Your task to perform on an android device: turn off data saver in the chrome app Image 0: 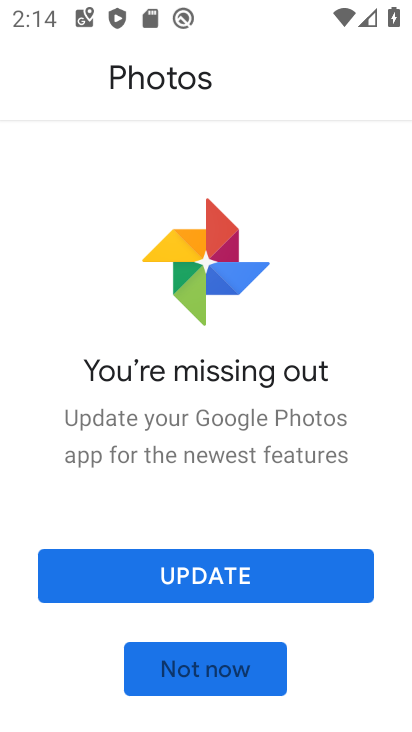
Step 0: press home button
Your task to perform on an android device: turn off data saver in the chrome app Image 1: 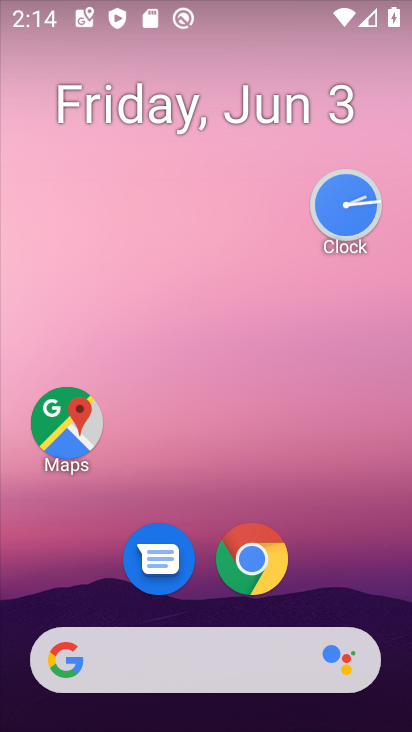
Step 1: click (271, 573)
Your task to perform on an android device: turn off data saver in the chrome app Image 2: 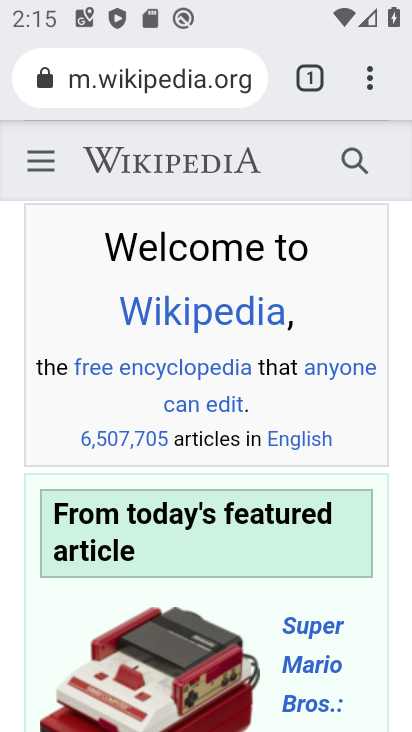
Step 2: click (373, 83)
Your task to perform on an android device: turn off data saver in the chrome app Image 3: 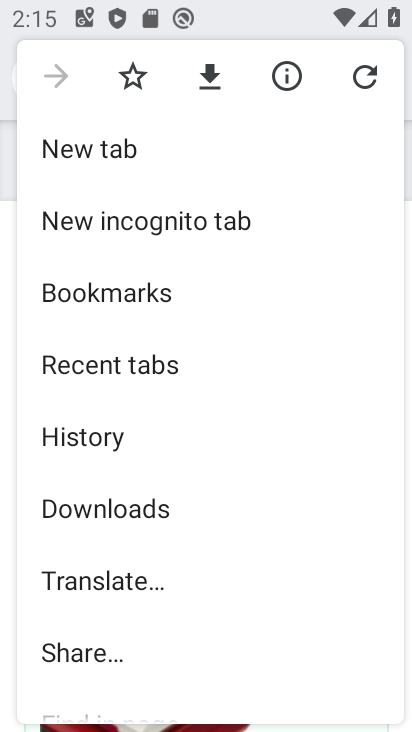
Step 3: drag from (206, 629) to (177, 464)
Your task to perform on an android device: turn off data saver in the chrome app Image 4: 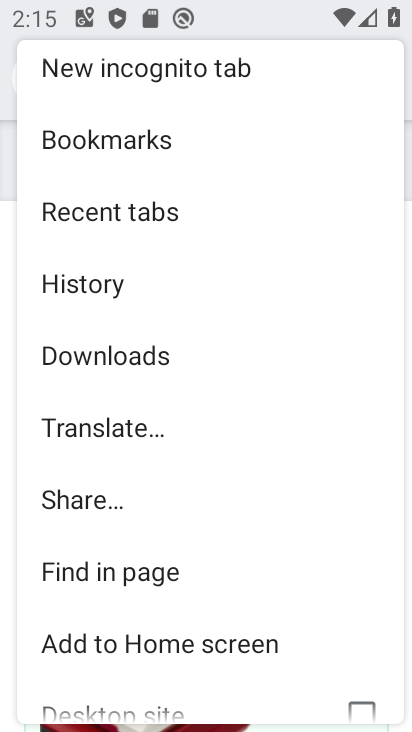
Step 4: drag from (220, 623) to (214, 445)
Your task to perform on an android device: turn off data saver in the chrome app Image 5: 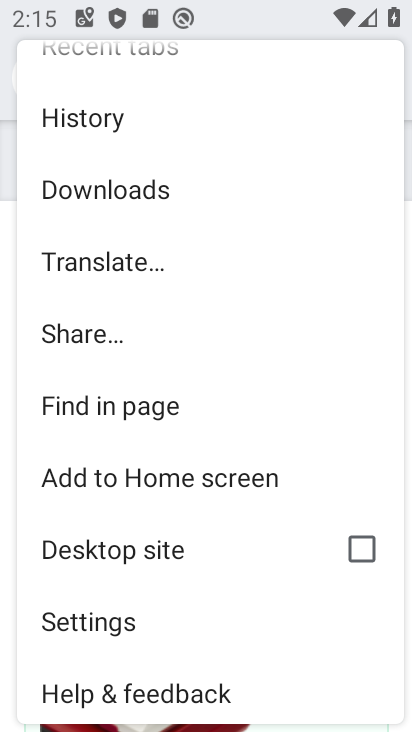
Step 5: click (179, 627)
Your task to perform on an android device: turn off data saver in the chrome app Image 6: 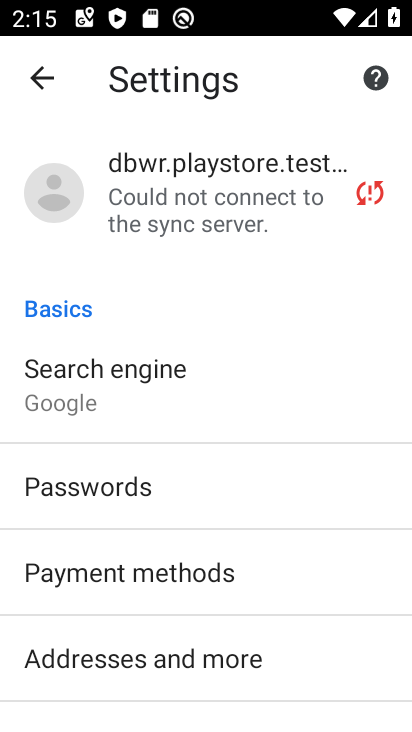
Step 6: drag from (284, 615) to (277, 366)
Your task to perform on an android device: turn off data saver in the chrome app Image 7: 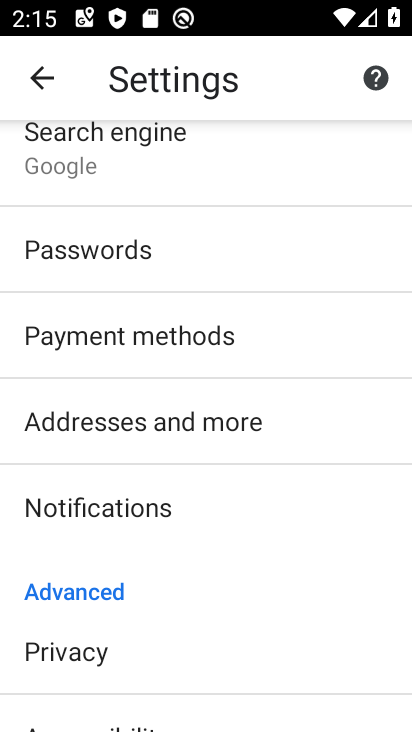
Step 7: drag from (329, 679) to (297, 426)
Your task to perform on an android device: turn off data saver in the chrome app Image 8: 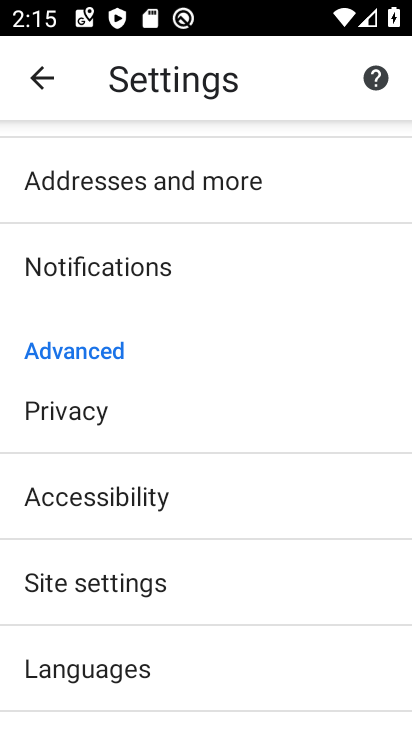
Step 8: drag from (264, 633) to (257, 502)
Your task to perform on an android device: turn off data saver in the chrome app Image 9: 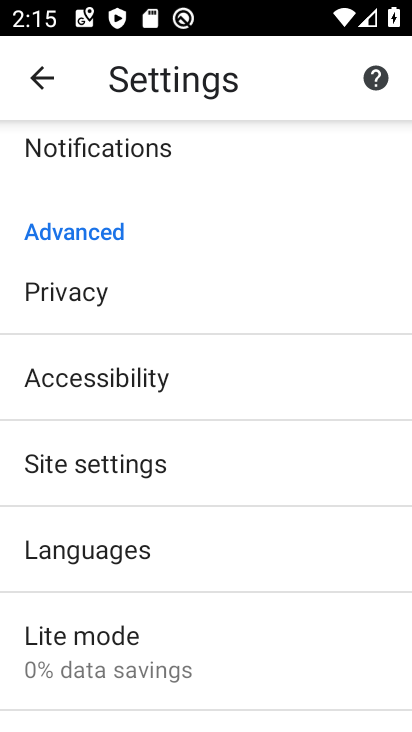
Step 9: drag from (258, 632) to (253, 533)
Your task to perform on an android device: turn off data saver in the chrome app Image 10: 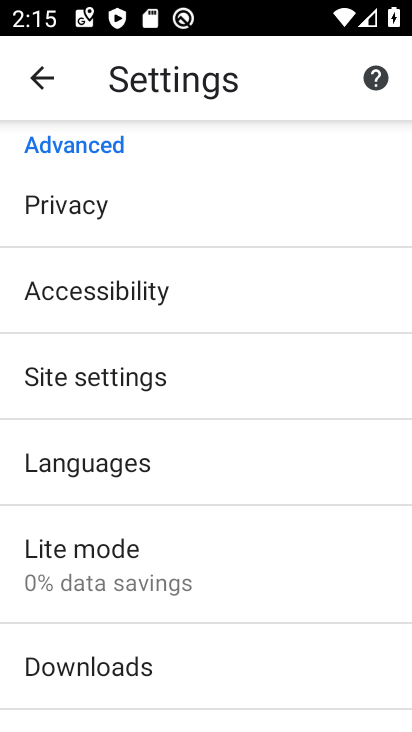
Step 10: click (255, 558)
Your task to perform on an android device: turn off data saver in the chrome app Image 11: 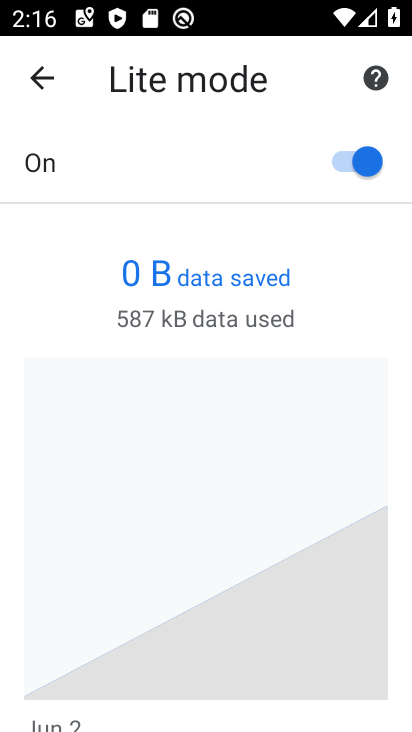
Step 11: click (362, 161)
Your task to perform on an android device: turn off data saver in the chrome app Image 12: 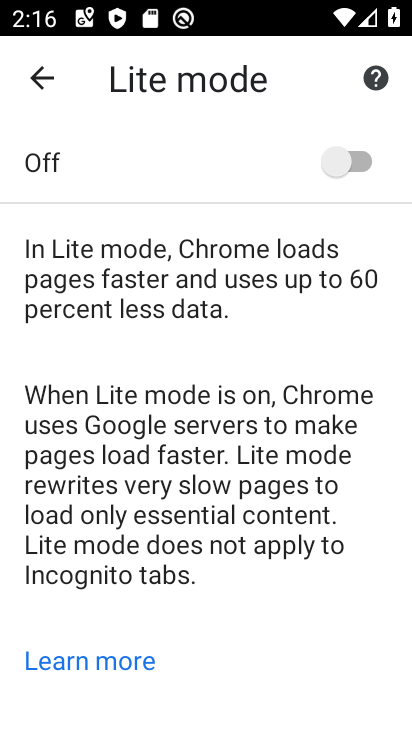
Step 12: task complete